Your task to perform on an android device: check the backup settings in the google photos Image 0: 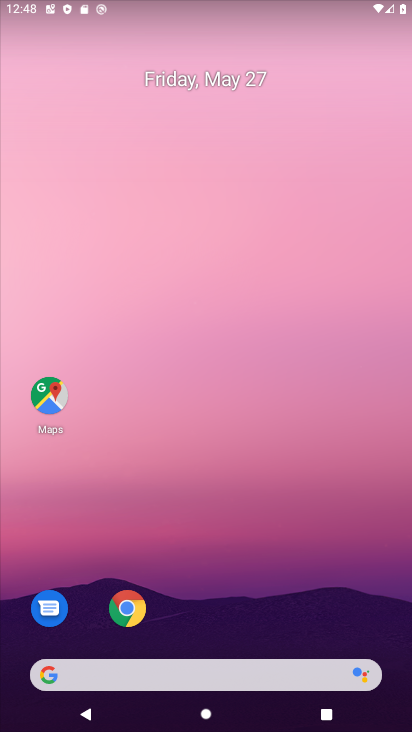
Step 0: drag from (267, 587) to (326, 116)
Your task to perform on an android device: check the backup settings in the google photos Image 1: 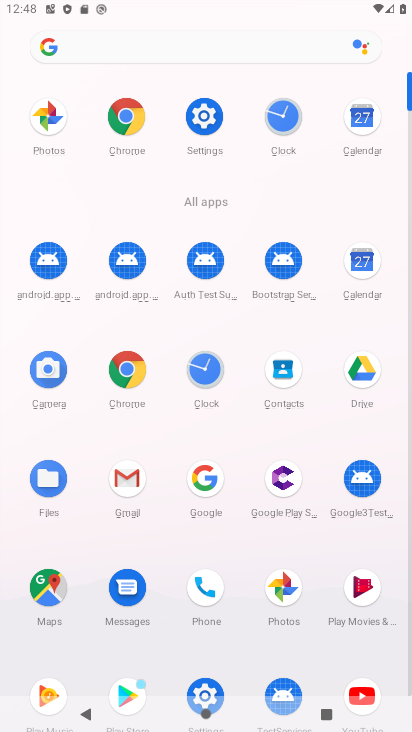
Step 1: click (291, 568)
Your task to perform on an android device: check the backup settings in the google photos Image 2: 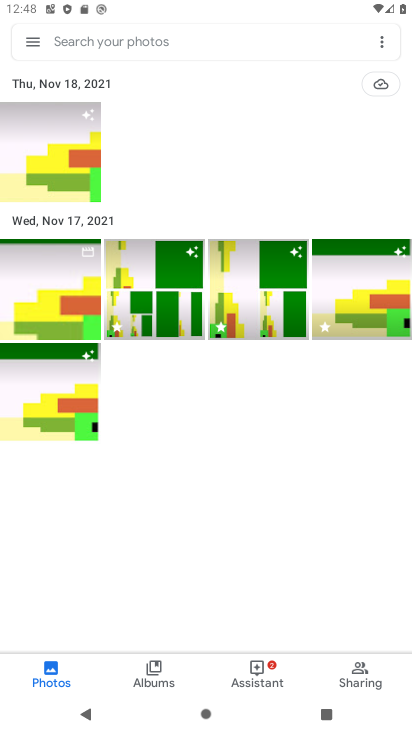
Step 2: click (29, 43)
Your task to perform on an android device: check the backup settings in the google photos Image 3: 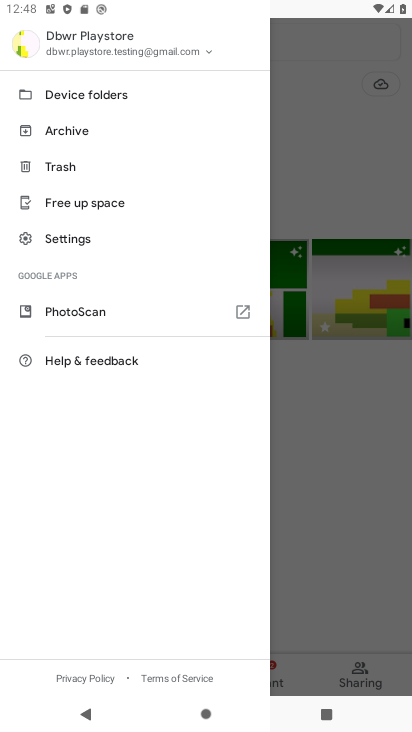
Step 3: click (89, 240)
Your task to perform on an android device: check the backup settings in the google photos Image 4: 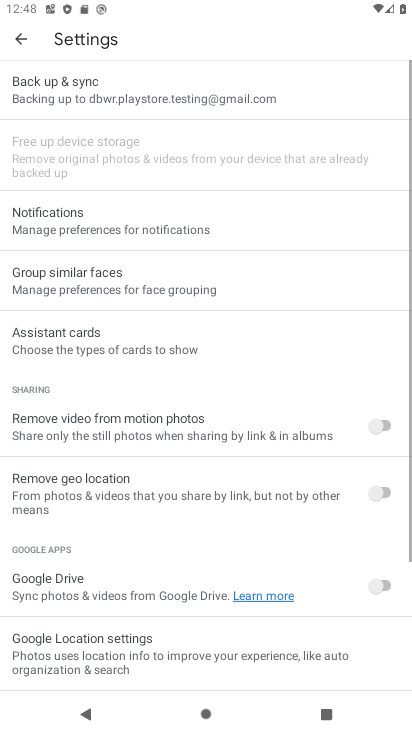
Step 4: click (99, 100)
Your task to perform on an android device: check the backup settings in the google photos Image 5: 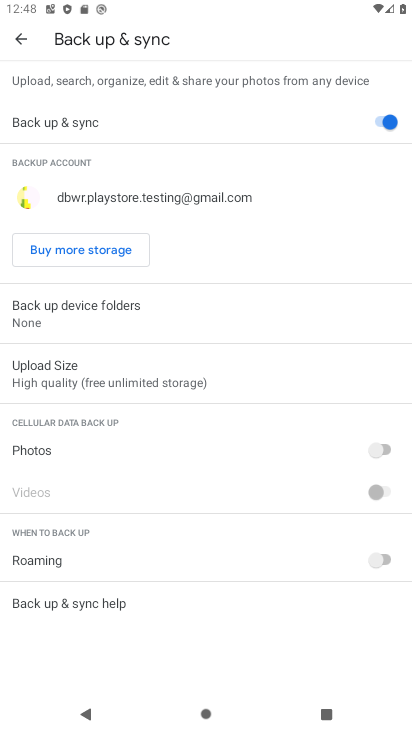
Step 5: task complete